Your task to perform on an android device: Open Reddit.com Image 0: 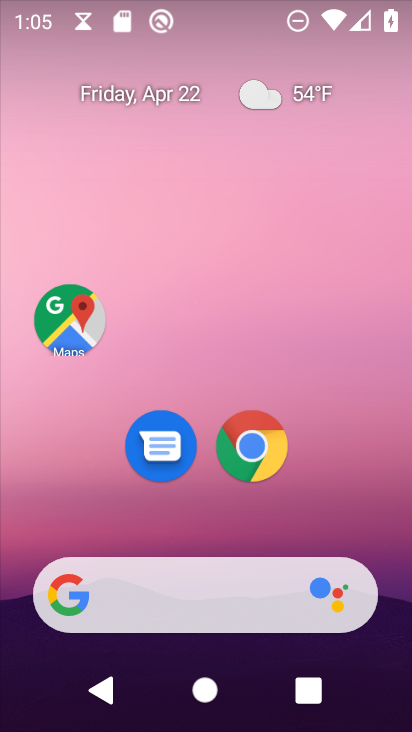
Step 0: click (267, 447)
Your task to perform on an android device: Open Reddit.com Image 1: 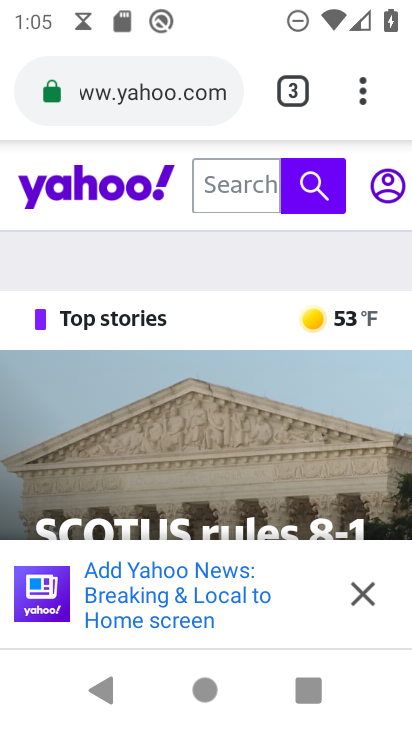
Step 1: click (108, 104)
Your task to perform on an android device: Open Reddit.com Image 2: 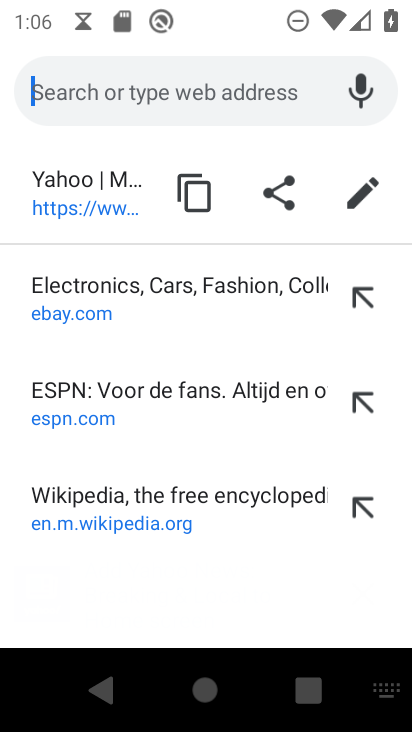
Step 2: type "Reddit.com"
Your task to perform on an android device: Open Reddit.com Image 3: 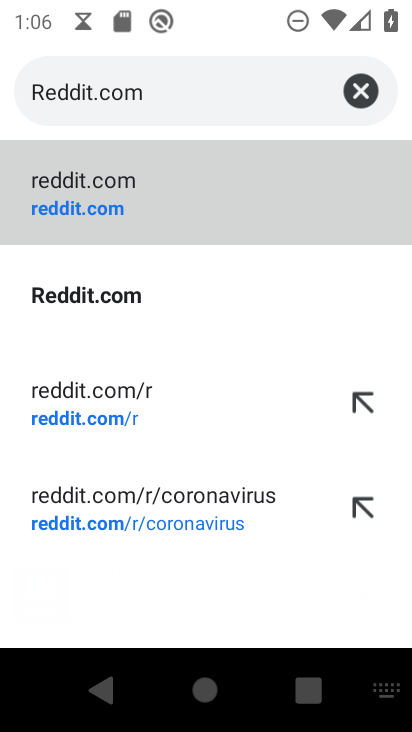
Step 3: click (108, 207)
Your task to perform on an android device: Open Reddit.com Image 4: 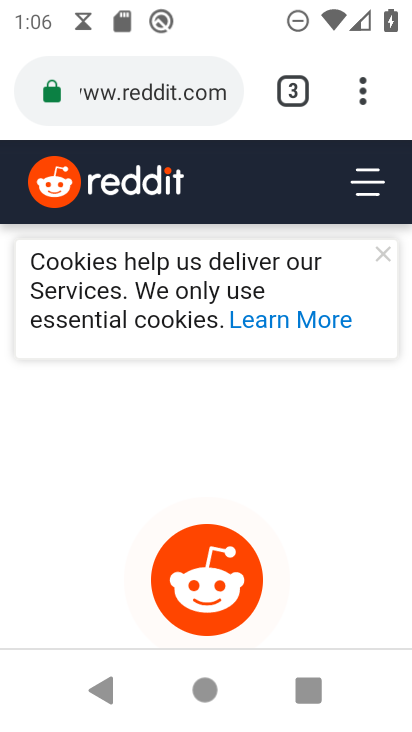
Step 4: task complete